Your task to perform on an android device: Open Google Chrome and click the shortcut for Amazon.com Image 0: 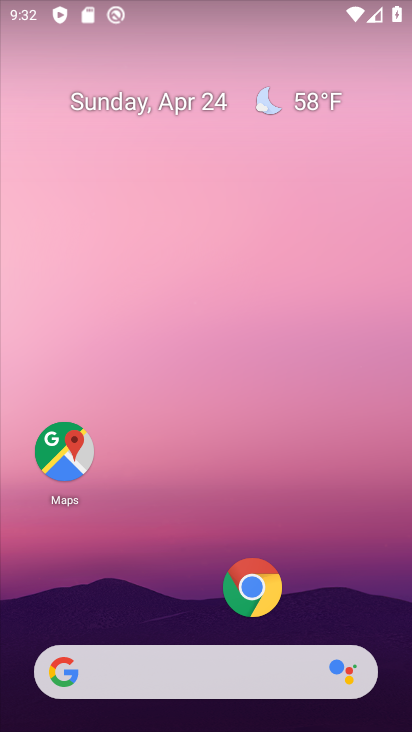
Step 0: click (267, 593)
Your task to perform on an android device: Open Google Chrome and click the shortcut for Amazon.com Image 1: 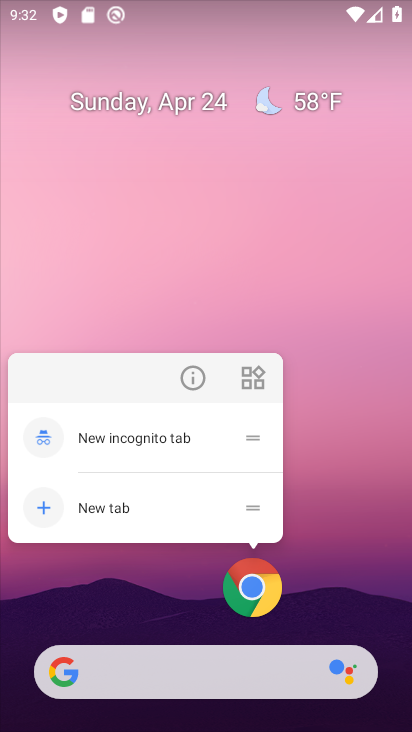
Step 1: click (267, 593)
Your task to perform on an android device: Open Google Chrome and click the shortcut for Amazon.com Image 2: 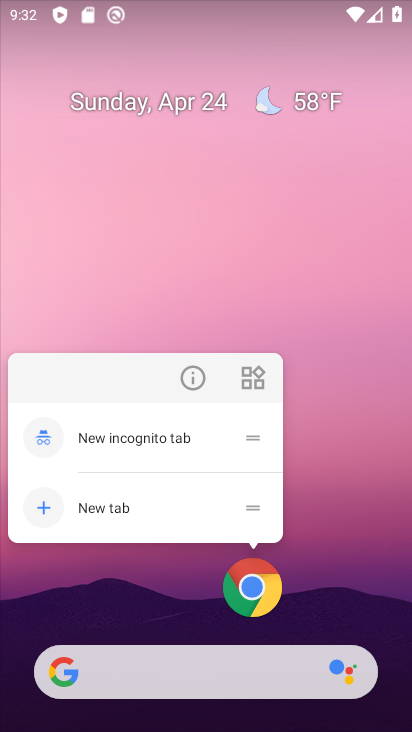
Step 2: click (267, 590)
Your task to perform on an android device: Open Google Chrome and click the shortcut for Amazon.com Image 3: 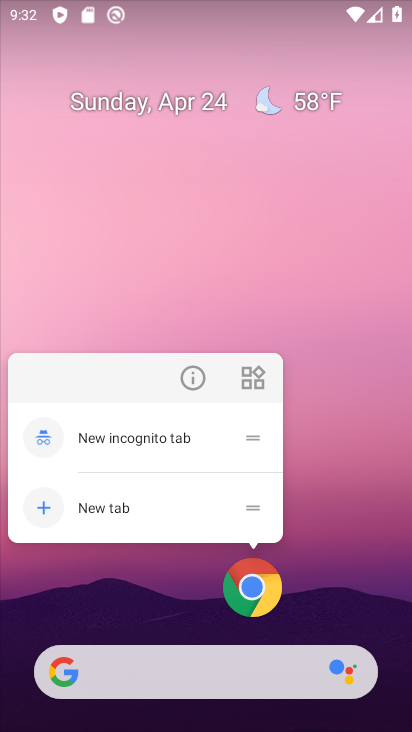
Step 3: click (267, 590)
Your task to perform on an android device: Open Google Chrome and click the shortcut for Amazon.com Image 4: 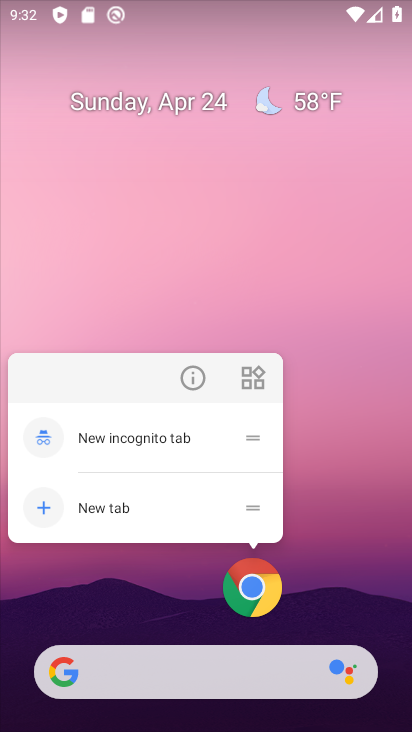
Step 4: click (262, 591)
Your task to perform on an android device: Open Google Chrome and click the shortcut for Amazon.com Image 5: 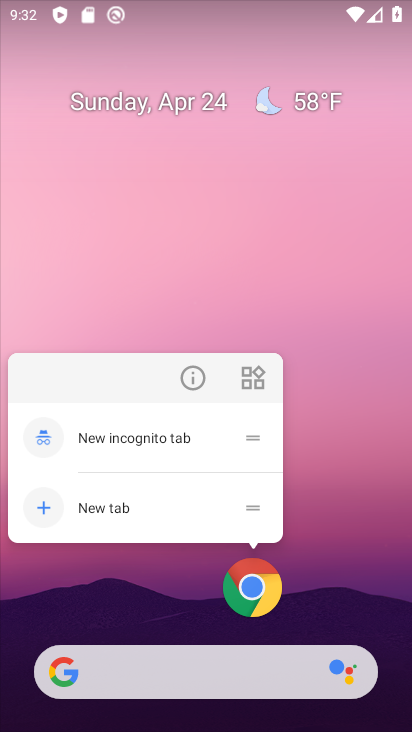
Step 5: click (263, 592)
Your task to perform on an android device: Open Google Chrome and click the shortcut for Amazon.com Image 6: 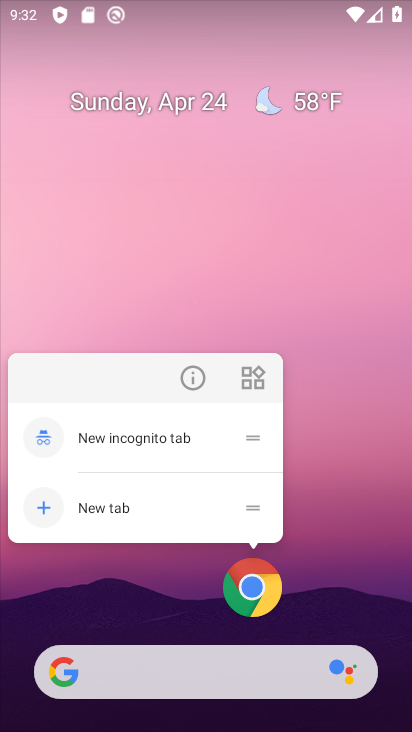
Step 6: click (263, 574)
Your task to perform on an android device: Open Google Chrome and click the shortcut for Amazon.com Image 7: 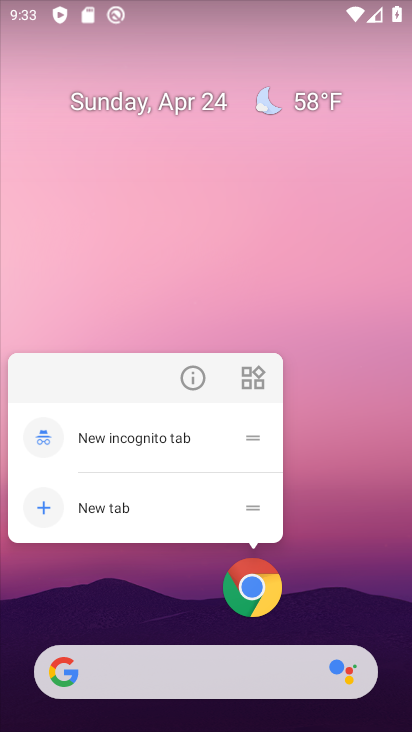
Step 7: drag from (286, 597) to (370, 97)
Your task to perform on an android device: Open Google Chrome and click the shortcut for Amazon.com Image 8: 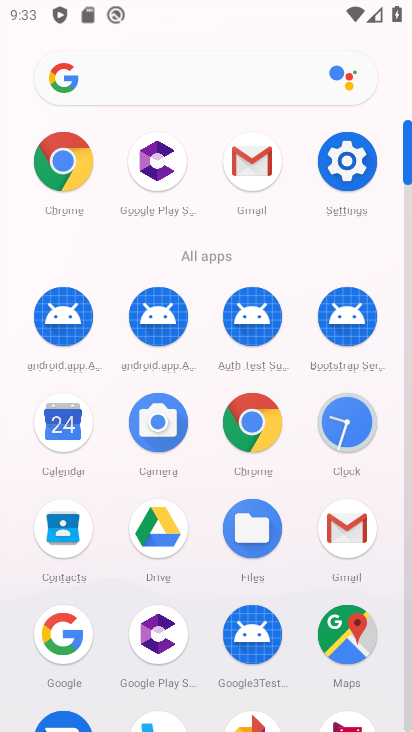
Step 8: click (267, 434)
Your task to perform on an android device: Open Google Chrome and click the shortcut for Amazon.com Image 9: 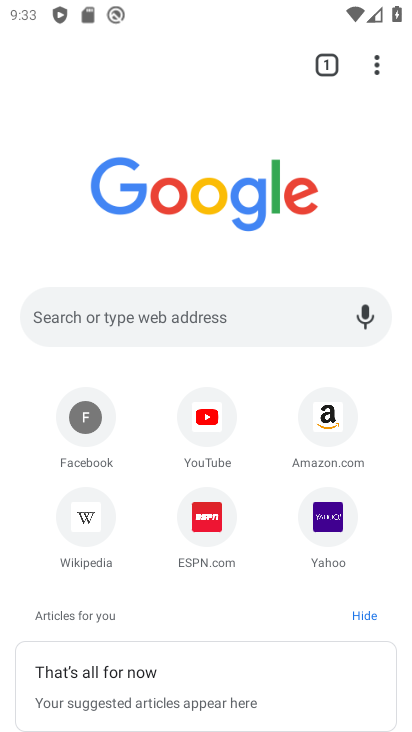
Step 9: click (327, 420)
Your task to perform on an android device: Open Google Chrome and click the shortcut for Amazon.com Image 10: 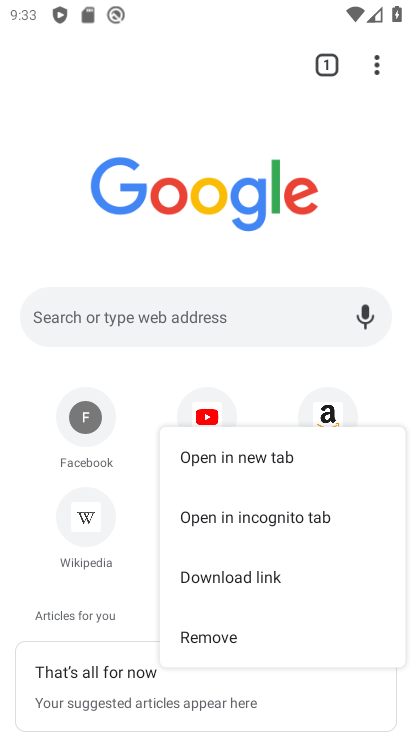
Step 10: click (325, 414)
Your task to perform on an android device: Open Google Chrome and click the shortcut for Amazon.com Image 11: 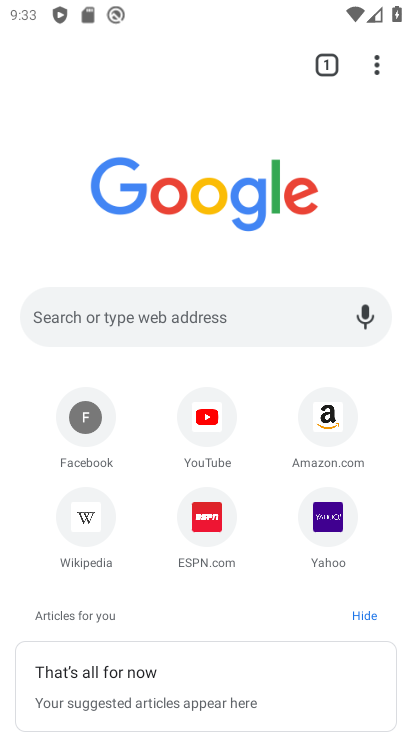
Step 11: click (334, 439)
Your task to perform on an android device: Open Google Chrome and click the shortcut for Amazon.com Image 12: 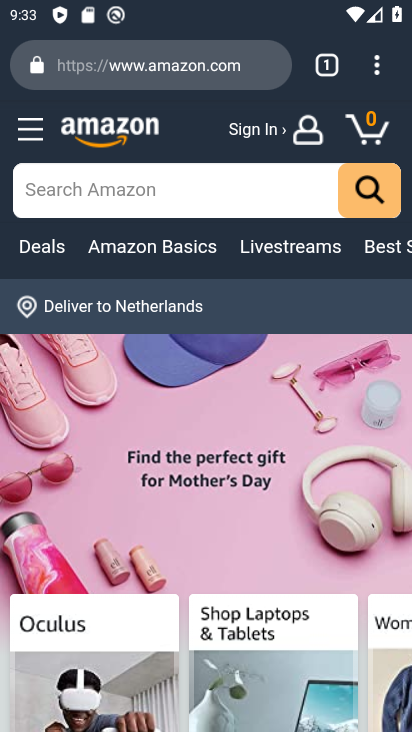
Step 12: task complete